Your task to perform on an android device: Go to calendar. Show me events next week Image 0: 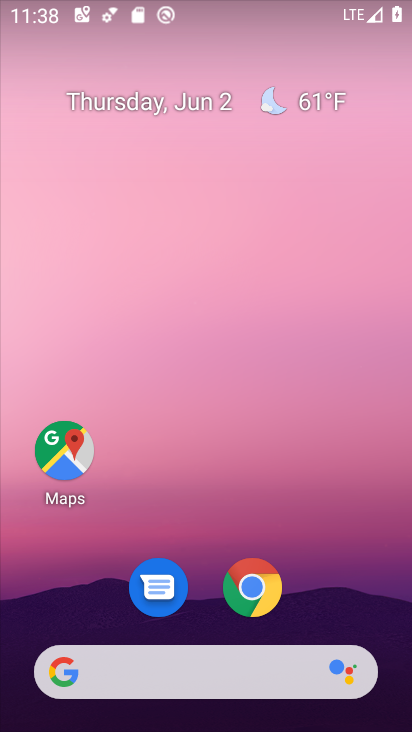
Step 0: drag from (201, 507) to (243, 0)
Your task to perform on an android device: Go to calendar. Show me events next week Image 1: 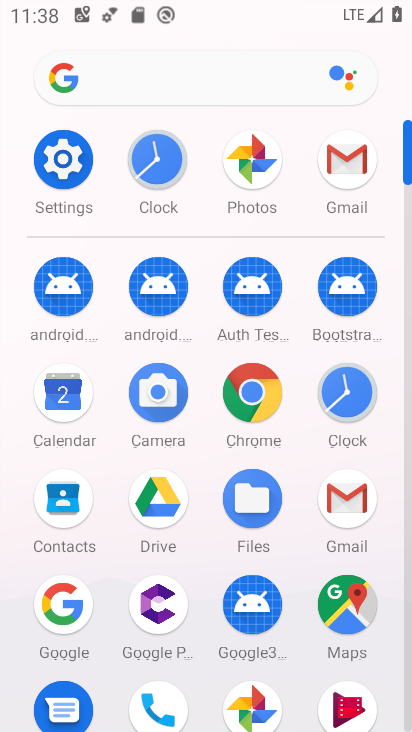
Step 1: click (68, 394)
Your task to perform on an android device: Go to calendar. Show me events next week Image 2: 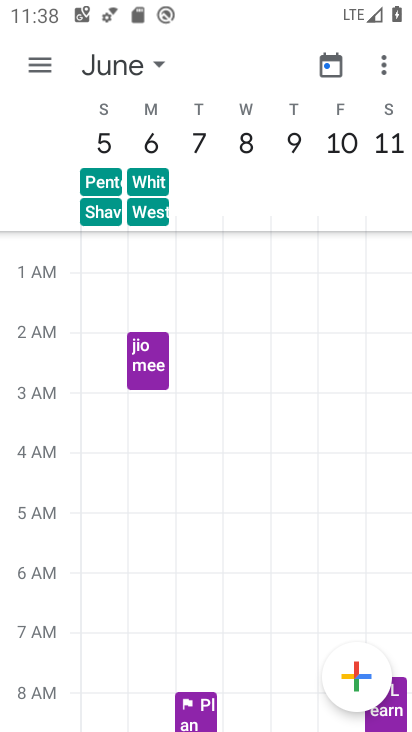
Step 2: task complete